Your task to perform on an android device: Go to Google Image 0: 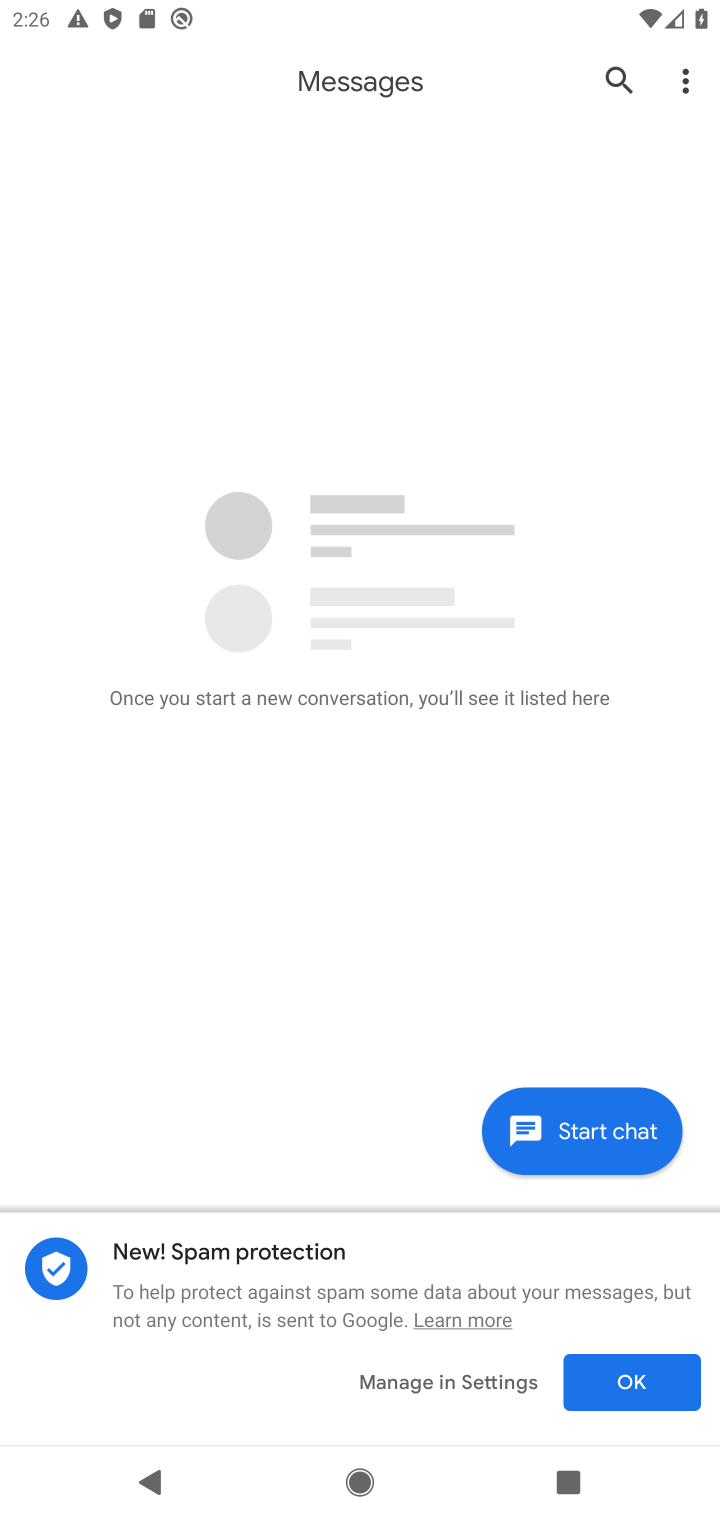
Step 0: press home button
Your task to perform on an android device: Go to Google Image 1: 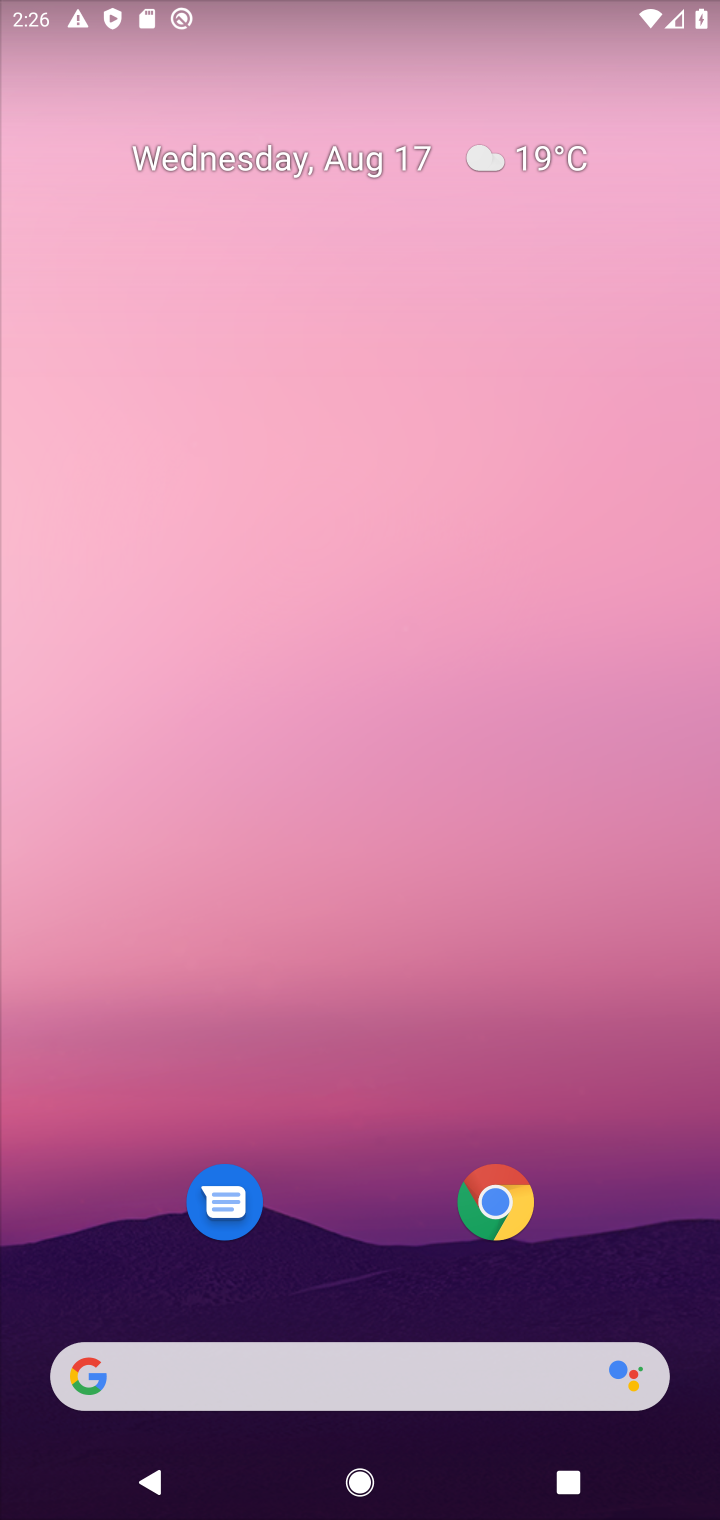
Step 1: click (83, 1358)
Your task to perform on an android device: Go to Google Image 2: 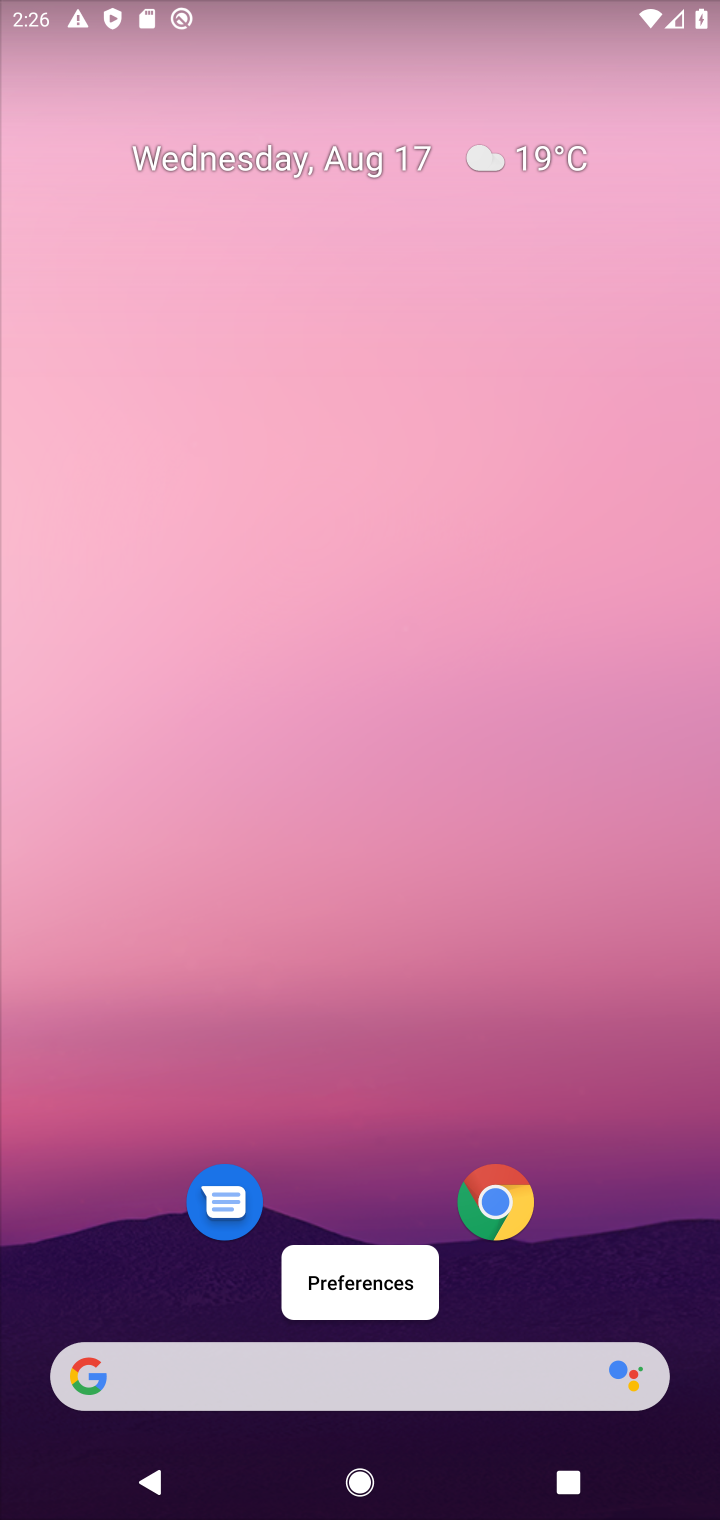
Step 2: click (83, 1358)
Your task to perform on an android device: Go to Google Image 3: 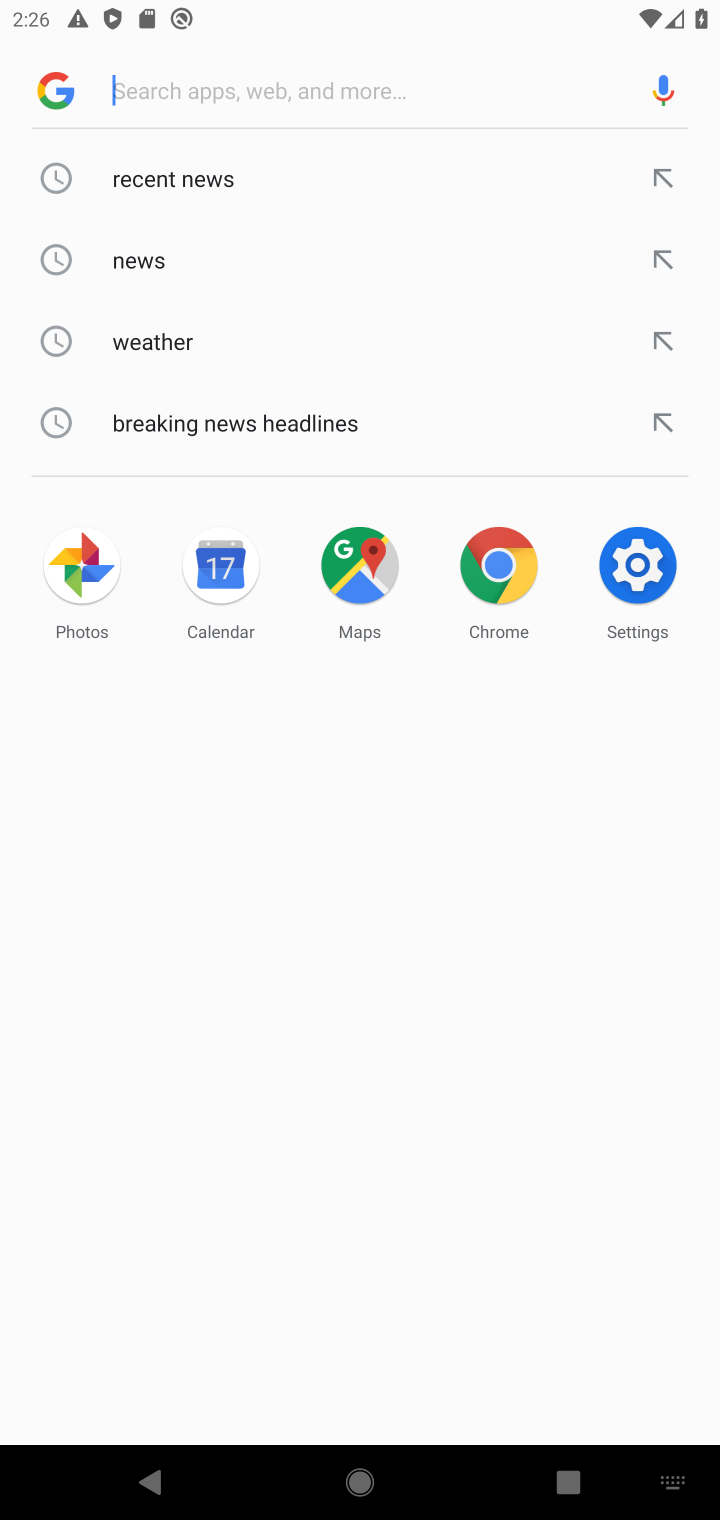
Step 3: click (49, 72)
Your task to perform on an android device: Go to Google Image 4: 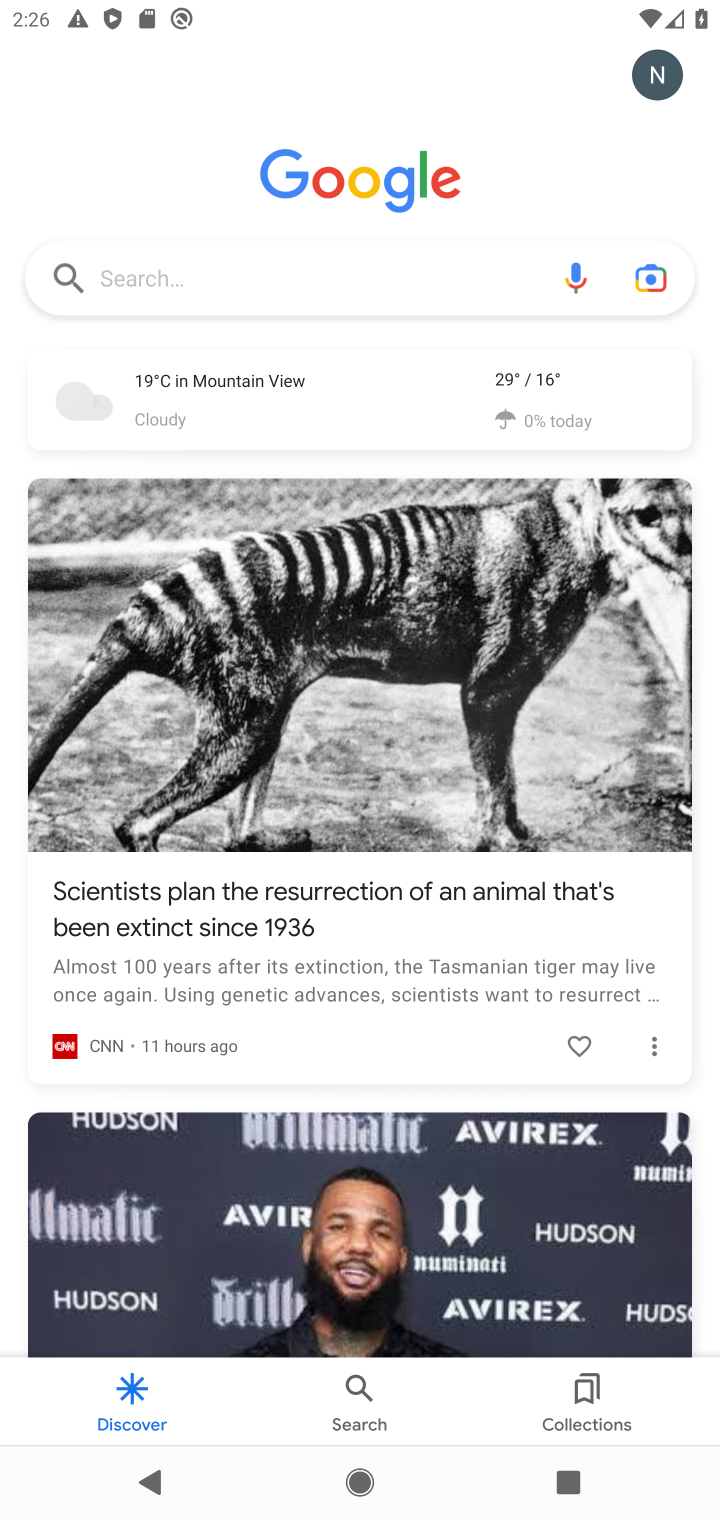
Step 4: task complete